Your task to perform on an android device: stop showing notifications on the lock screen Image 0: 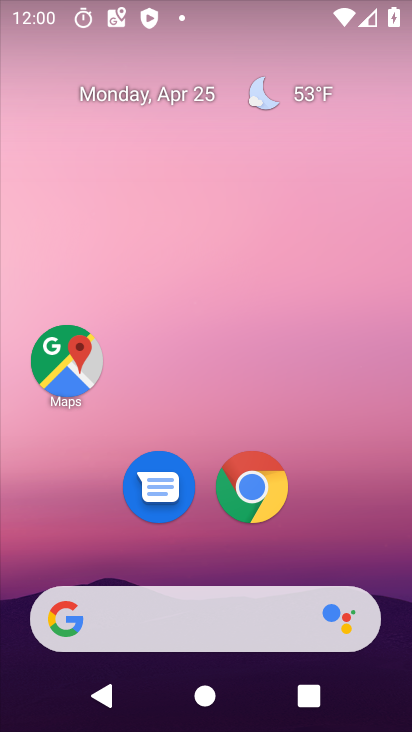
Step 0: drag from (209, 558) to (255, 125)
Your task to perform on an android device: stop showing notifications on the lock screen Image 1: 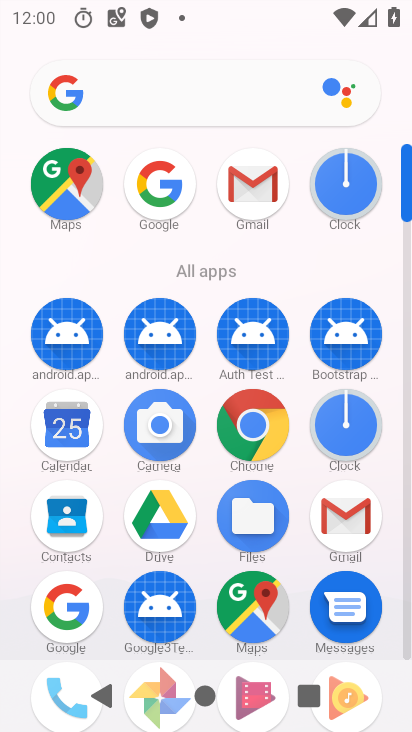
Step 1: drag from (202, 565) to (214, 296)
Your task to perform on an android device: stop showing notifications on the lock screen Image 2: 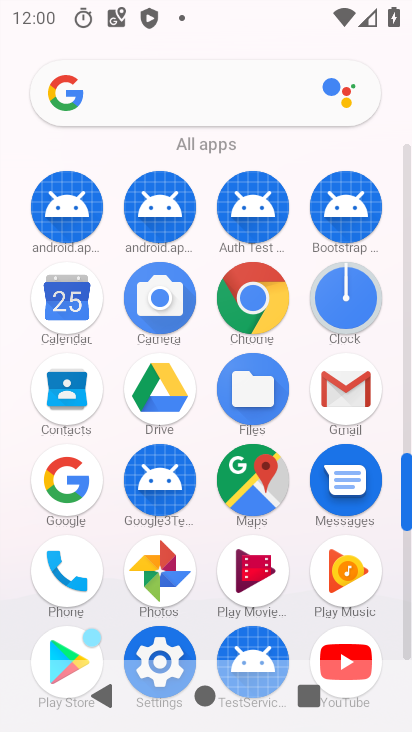
Step 2: click (158, 647)
Your task to perform on an android device: stop showing notifications on the lock screen Image 3: 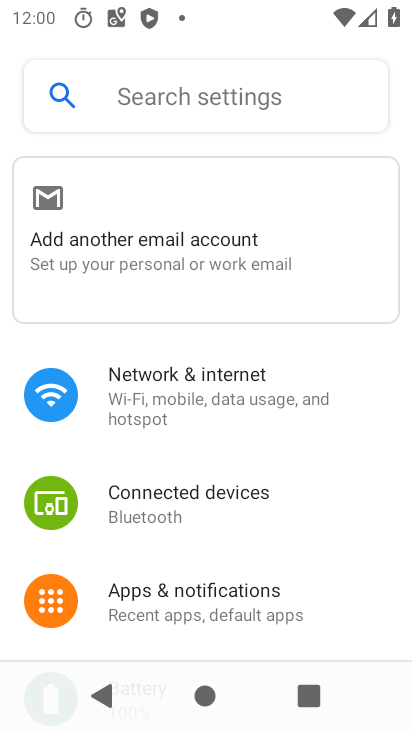
Step 3: click (194, 595)
Your task to perform on an android device: stop showing notifications on the lock screen Image 4: 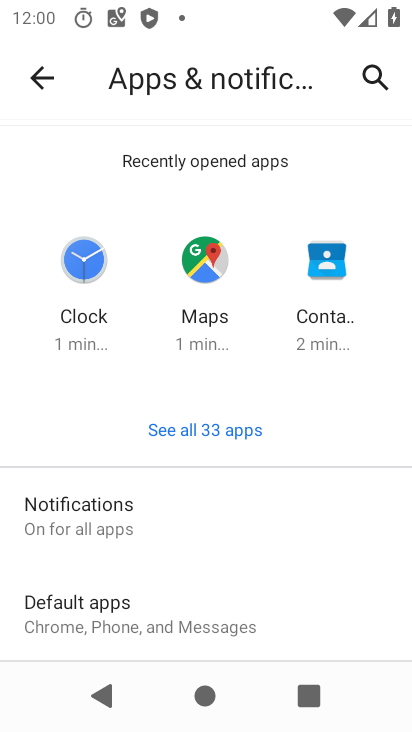
Step 4: click (142, 527)
Your task to perform on an android device: stop showing notifications on the lock screen Image 5: 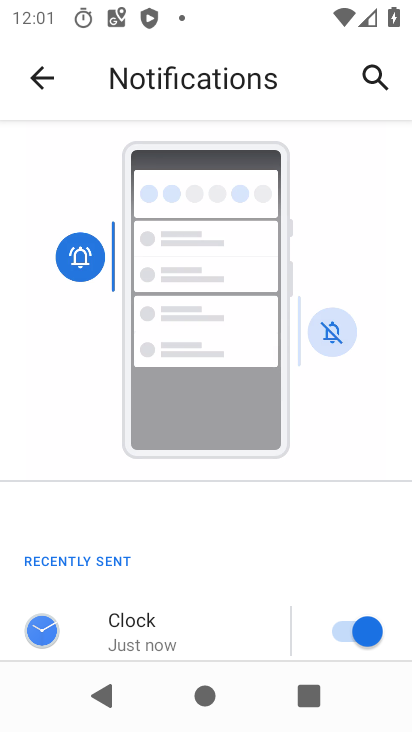
Step 5: drag from (178, 627) to (301, 338)
Your task to perform on an android device: stop showing notifications on the lock screen Image 6: 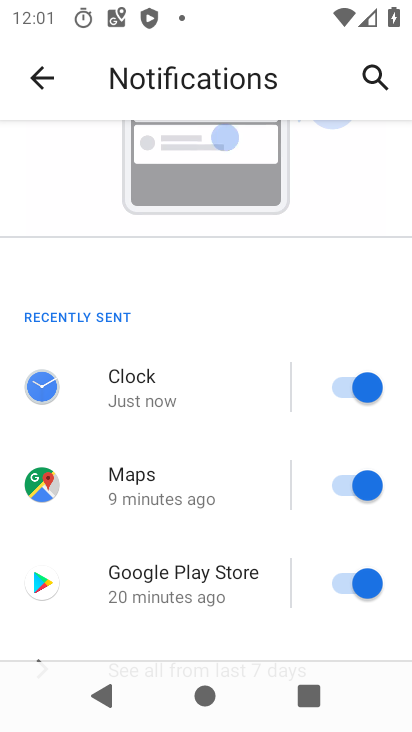
Step 6: drag from (214, 624) to (244, 80)
Your task to perform on an android device: stop showing notifications on the lock screen Image 7: 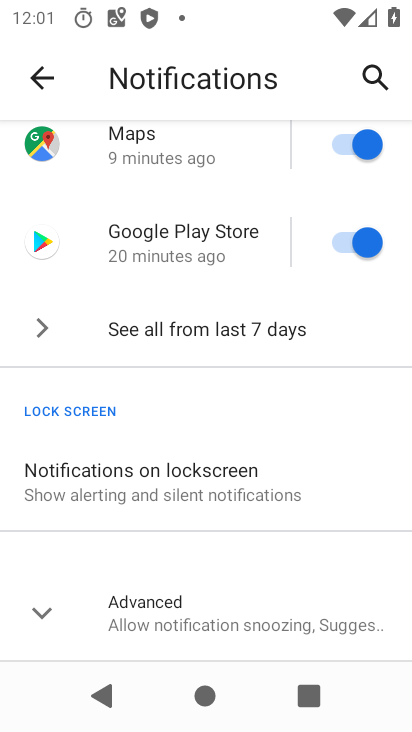
Step 7: click (161, 469)
Your task to perform on an android device: stop showing notifications on the lock screen Image 8: 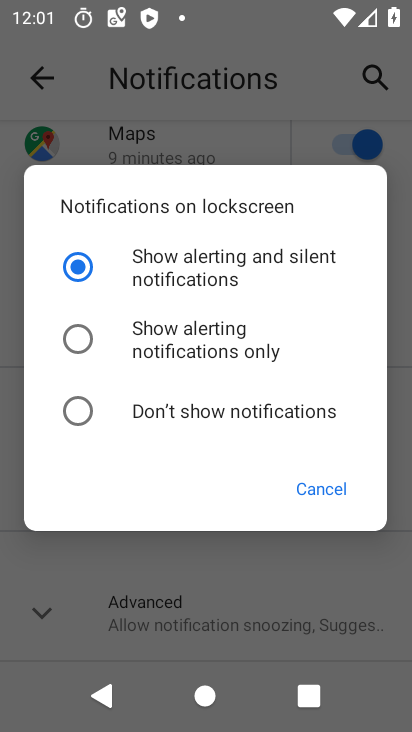
Step 8: click (89, 417)
Your task to perform on an android device: stop showing notifications on the lock screen Image 9: 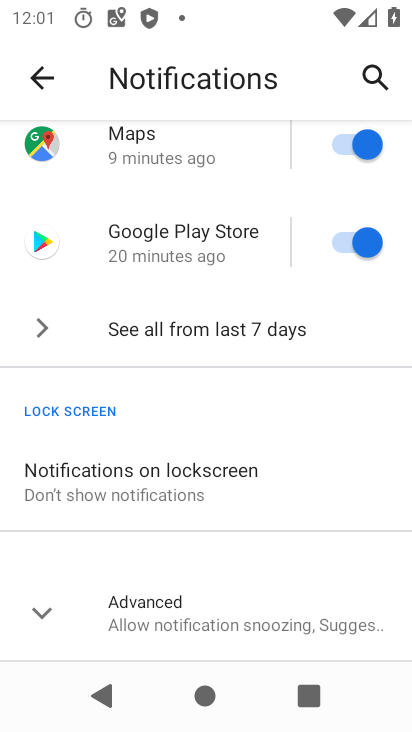
Step 9: task complete